Your task to perform on an android device: Open Reddit.com Image 0: 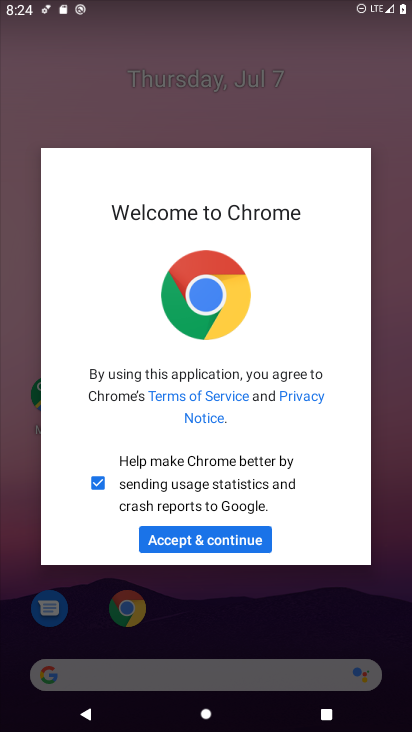
Step 0: click (218, 539)
Your task to perform on an android device: Open Reddit.com Image 1: 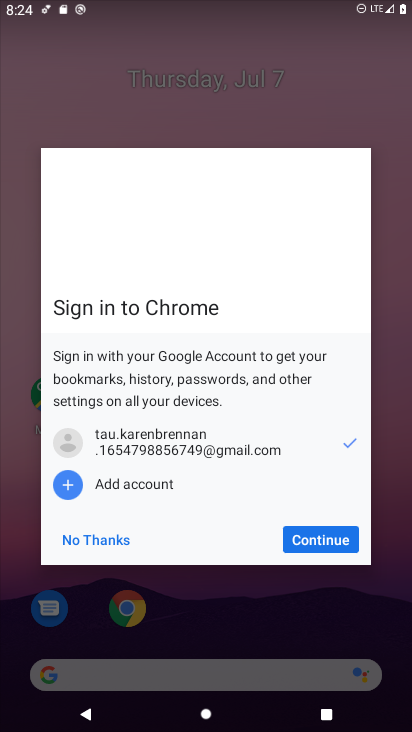
Step 1: click (305, 541)
Your task to perform on an android device: Open Reddit.com Image 2: 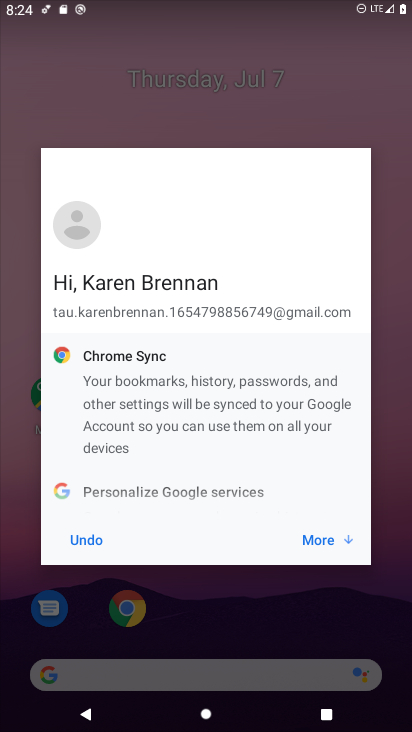
Step 2: click (309, 541)
Your task to perform on an android device: Open Reddit.com Image 3: 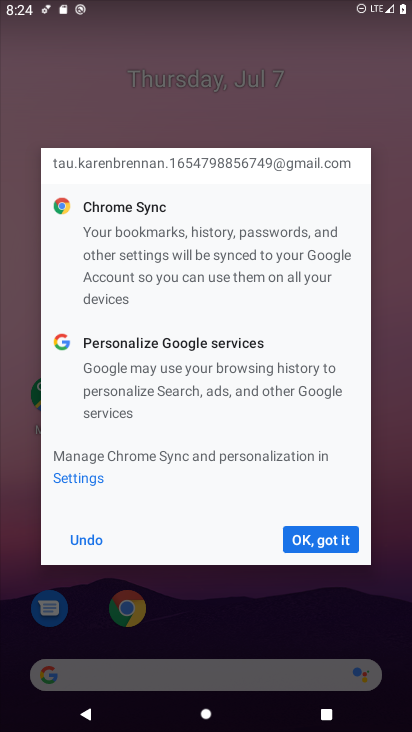
Step 3: click (309, 541)
Your task to perform on an android device: Open Reddit.com Image 4: 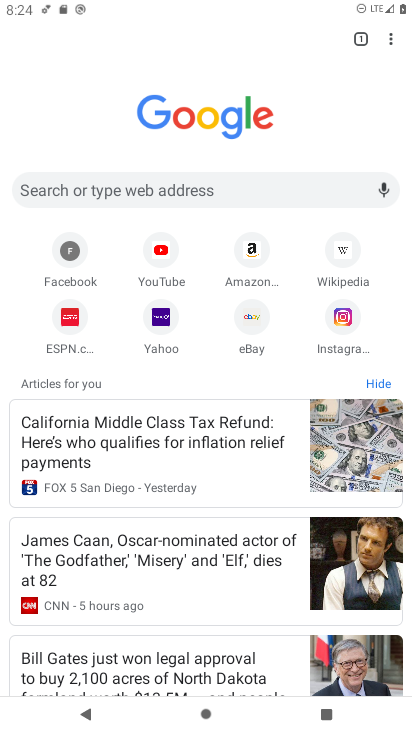
Step 4: click (176, 181)
Your task to perform on an android device: Open Reddit.com Image 5: 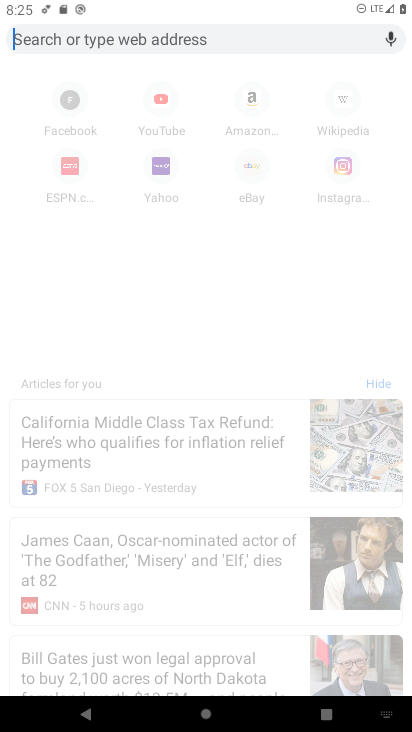
Step 5: type "Reddit.com"
Your task to perform on an android device: Open Reddit.com Image 6: 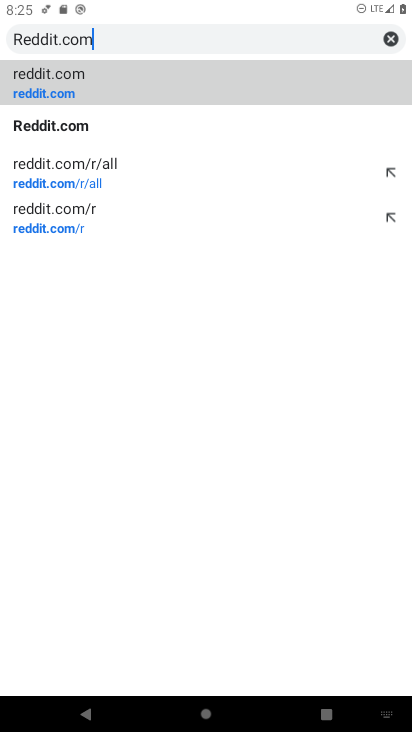
Step 6: click (60, 79)
Your task to perform on an android device: Open Reddit.com Image 7: 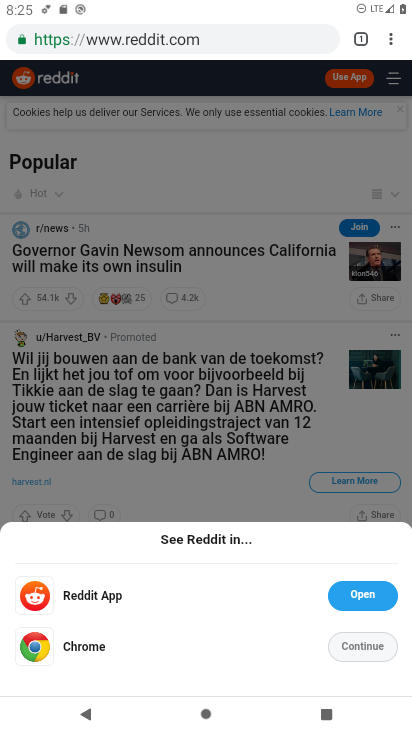
Step 7: task complete